Your task to perform on an android device: Open Reddit.com Image 0: 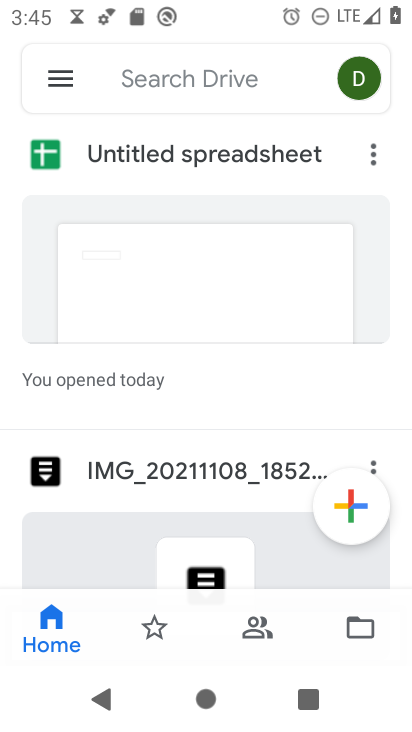
Step 0: press home button
Your task to perform on an android device: Open Reddit.com Image 1: 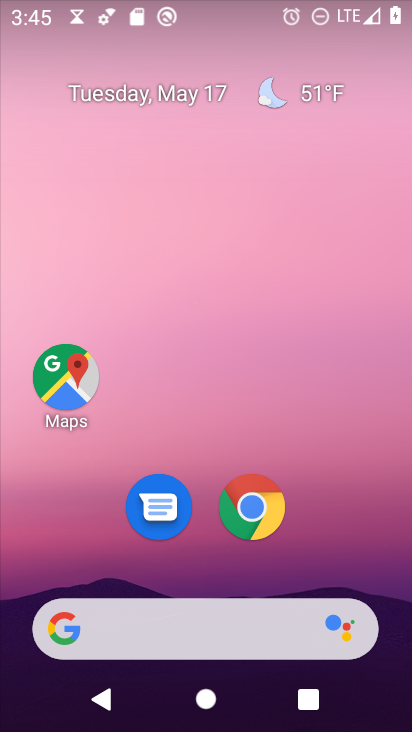
Step 1: drag from (206, 567) to (200, 64)
Your task to perform on an android device: Open Reddit.com Image 2: 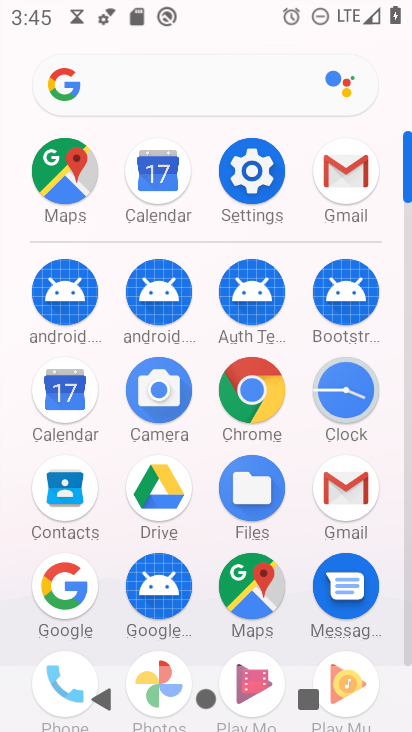
Step 2: click (250, 380)
Your task to perform on an android device: Open Reddit.com Image 3: 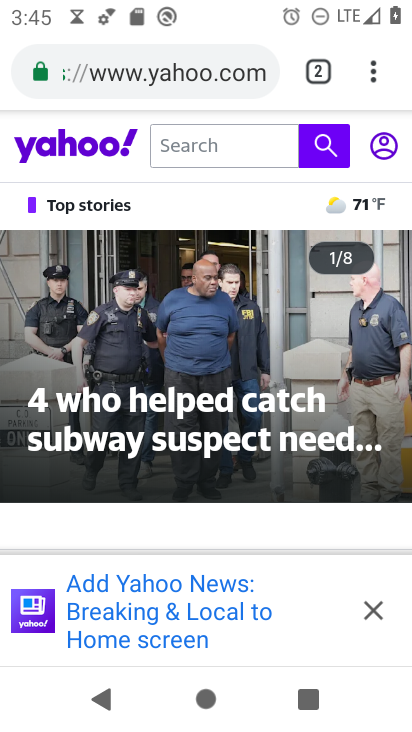
Step 3: click (146, 76)
Your task to perform on an android device: Open Reddit.com Image 4: 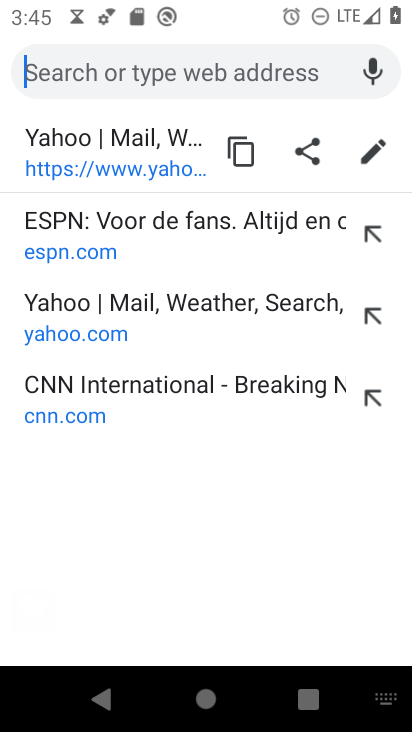
Step 4: type "reddit.com"
Your task to perform on an android device: Open Reddit.com Image 5: 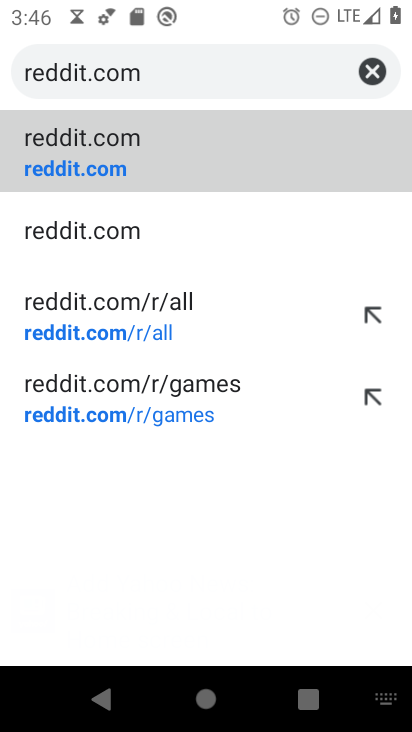
Step 5: click (94, 163)
Your task to perform on an android device: Open Reddit.com Image 6: 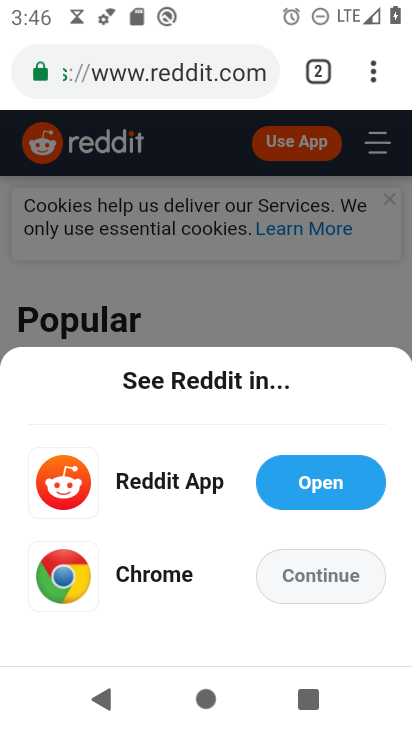
Step 6: task complete